Your task to perform on an android device: Open Chrome and go to settings Image 0: 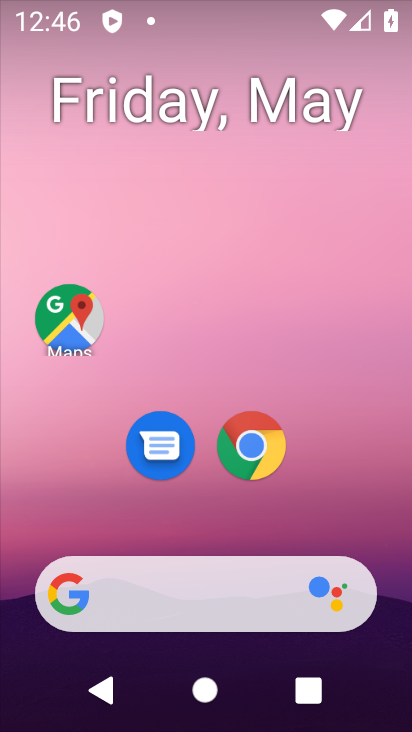
Step 0: click (243, 441)
Your task to perform on an android device: Open Chrome and go to settings Image 1: 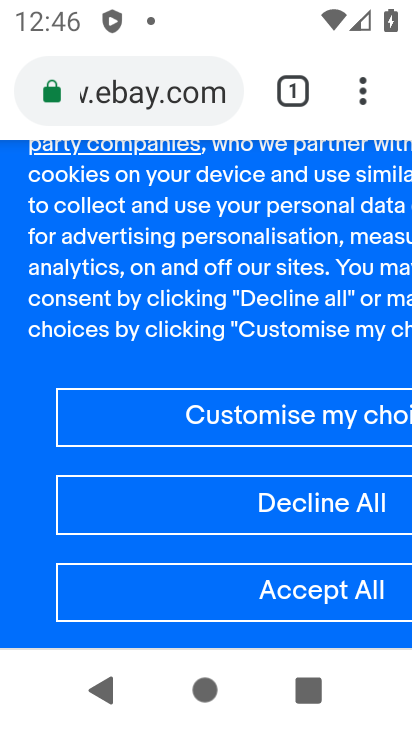
Step 1: click (361, 95)
Your task to perform on an android device: Open Chrome and go to settings Image 2: 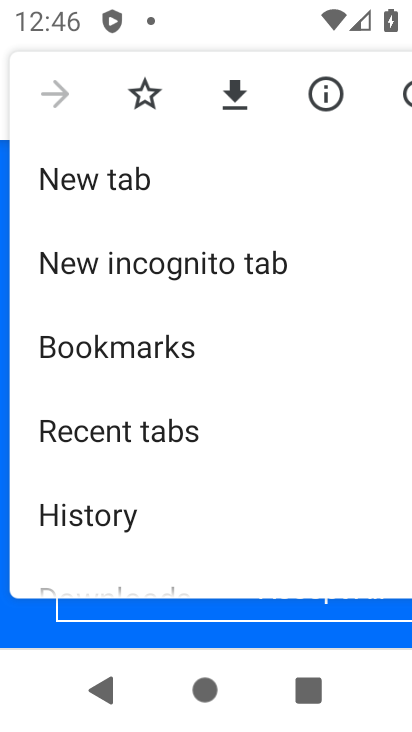
Step 2: drag from (187, 529) to (292, 135)
Your task to perform on an android device: Open Chrome and go to settings Image 3: 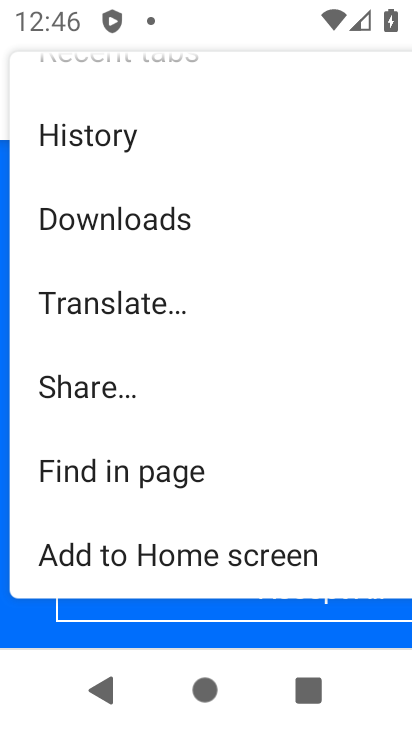
Step 3: drag from (262, 518) to (284, 172)
Your task to perform on an android device: Open Chrome and go to settings Image 4: 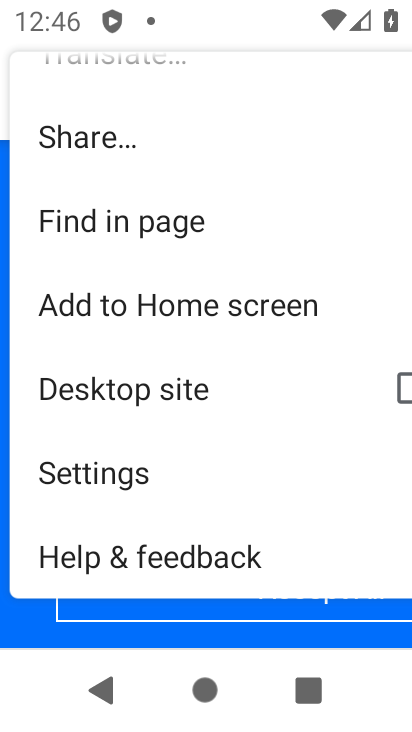
Step 4: click (113, 480)
Your task to perform on an android device: Open Chrome and go to settings Image 5: 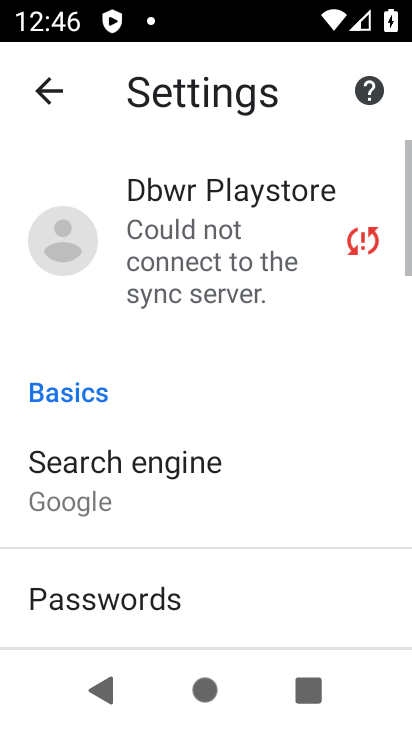
Step 5: task complete